Your task to perform on an android device: toggle location history Image 0: 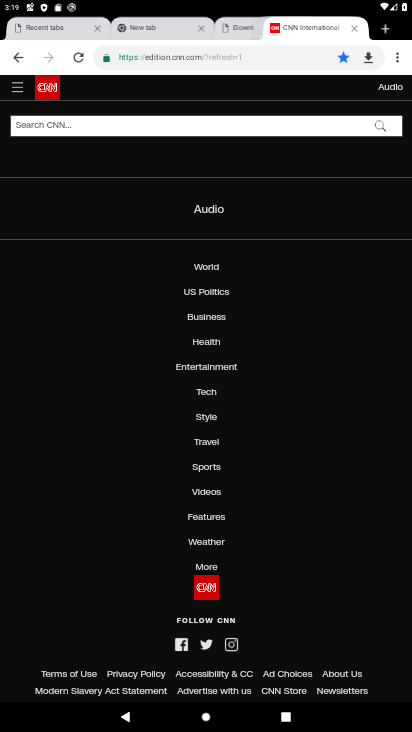
Step 0: press home button
Your task to perform on an android device: toggle location history Image 1: 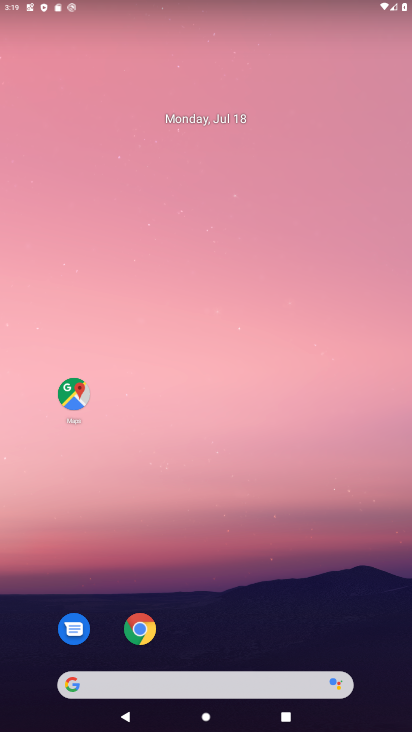
Step 1: drag from (226, 630) to (226, 246)
Your task to perform on an android device: toggle location history Image 2: 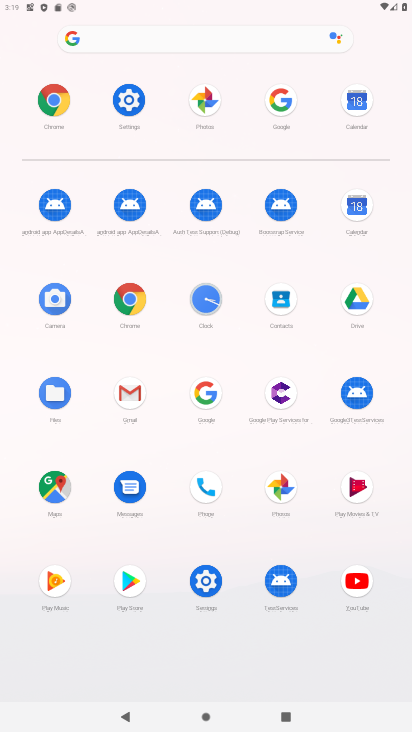
Step 2: click (130, 106)
Your task to perform on an android device: toggle location history Image 3: 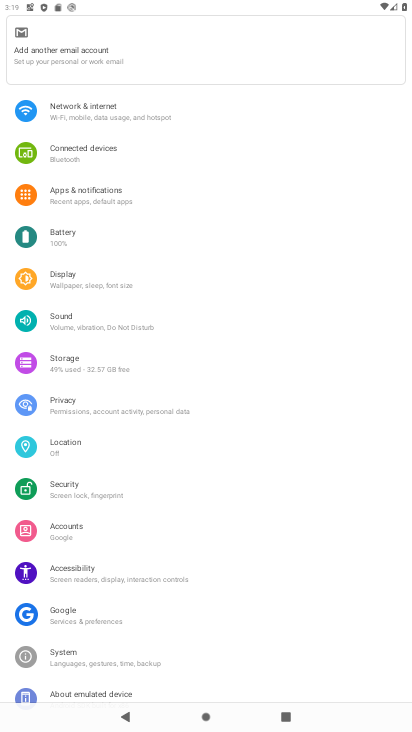
Step 3: click (85, 454)
Your task to perform on an android device: toggle location history Image 4: 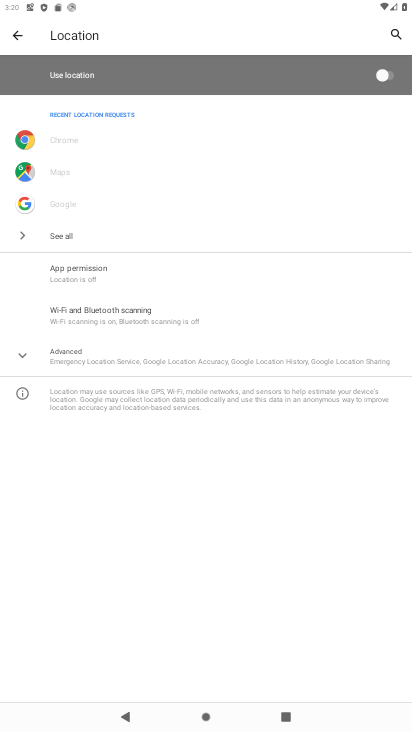
Step 4: click (131, 369)
Your task to perform on an android device: toggle location history Image 5: 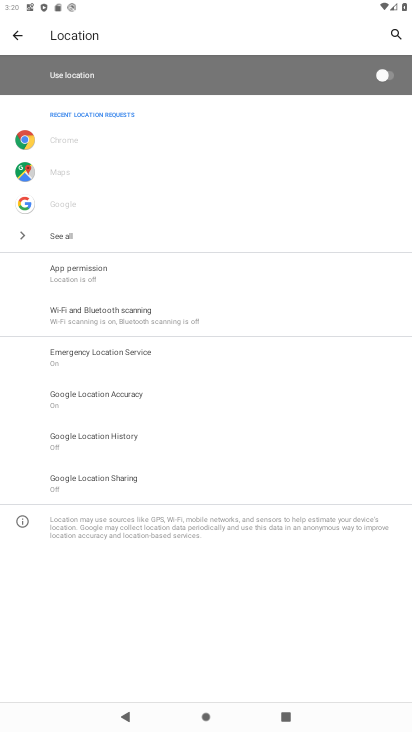
Step 5: click (181, 440)
Your task to perform on an android device: toggle location history Image 6: 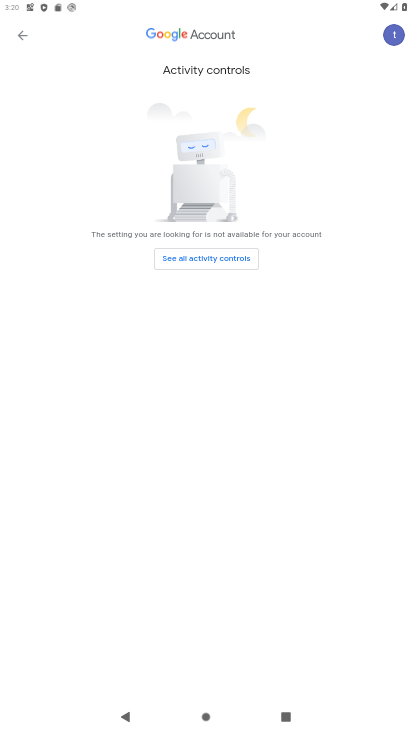
Step 6: task complete